Your task to perform on an android device: Go to Yahoo.com Image 0: 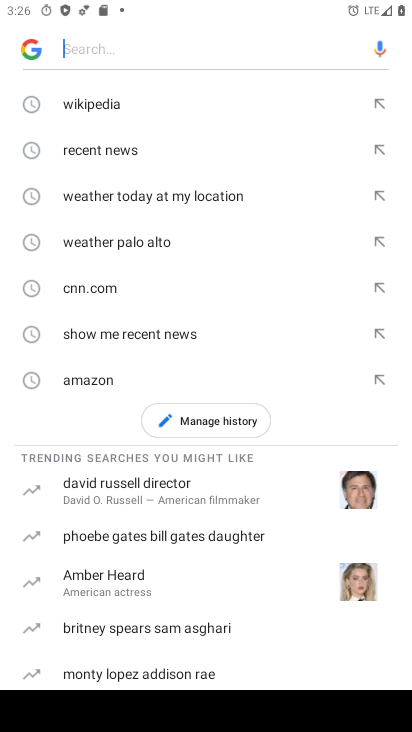
Step 0: press enter
Your task to perform on an android device: Go to Yahoo.com Image 1: 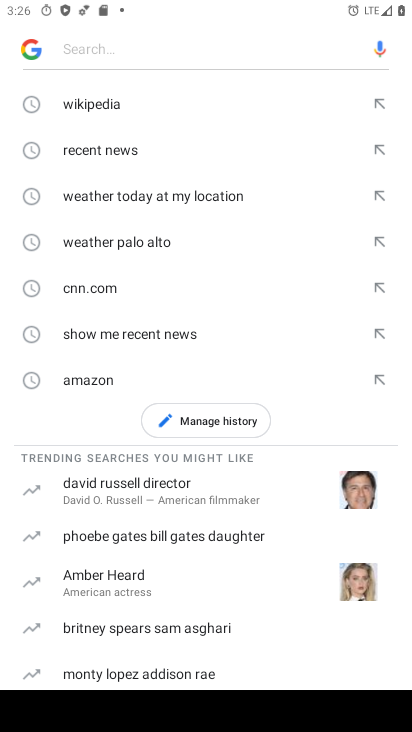
Step 1: type "yahoo.com"
Your task to perform on an android device: Go to Yahoo.com Image 2: 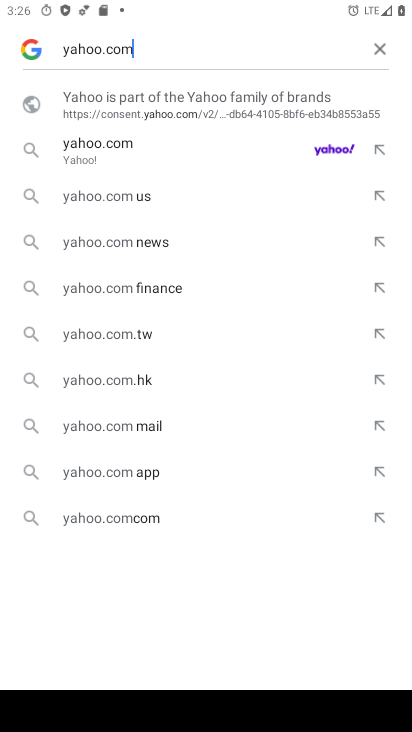
Step 2: press enter
Your task to perform on an android device: Go to Yahoo.com Image 3: 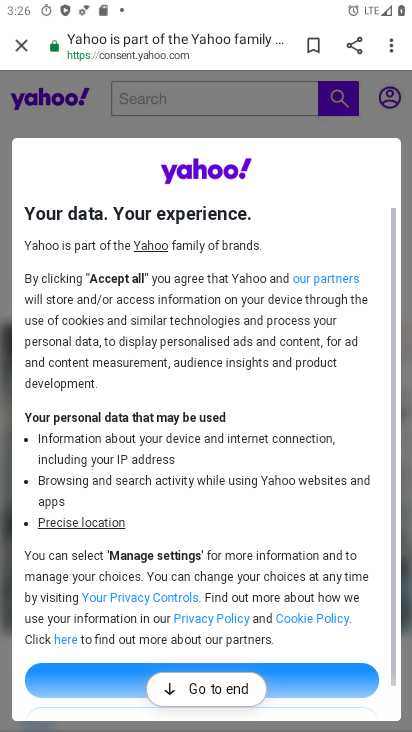
Step 3: click (214, 687)
Your task to perform on an android device: Go to Yahoo.com Image 4: 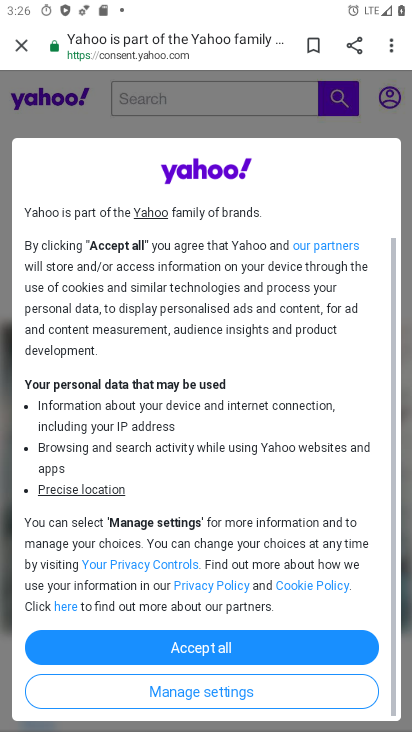
Step 4: click (201, 654)
Your task to perform on an android device: Go to Yahoo.com Image 5: 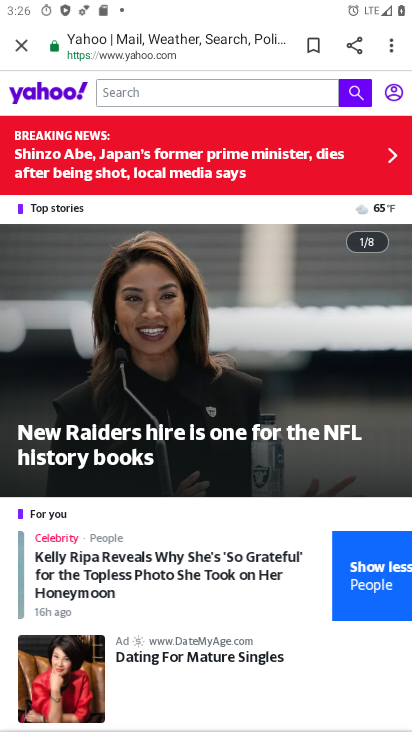
Step 5: task complete